Your task to perform on an android device: open app "Skype" Image 0: 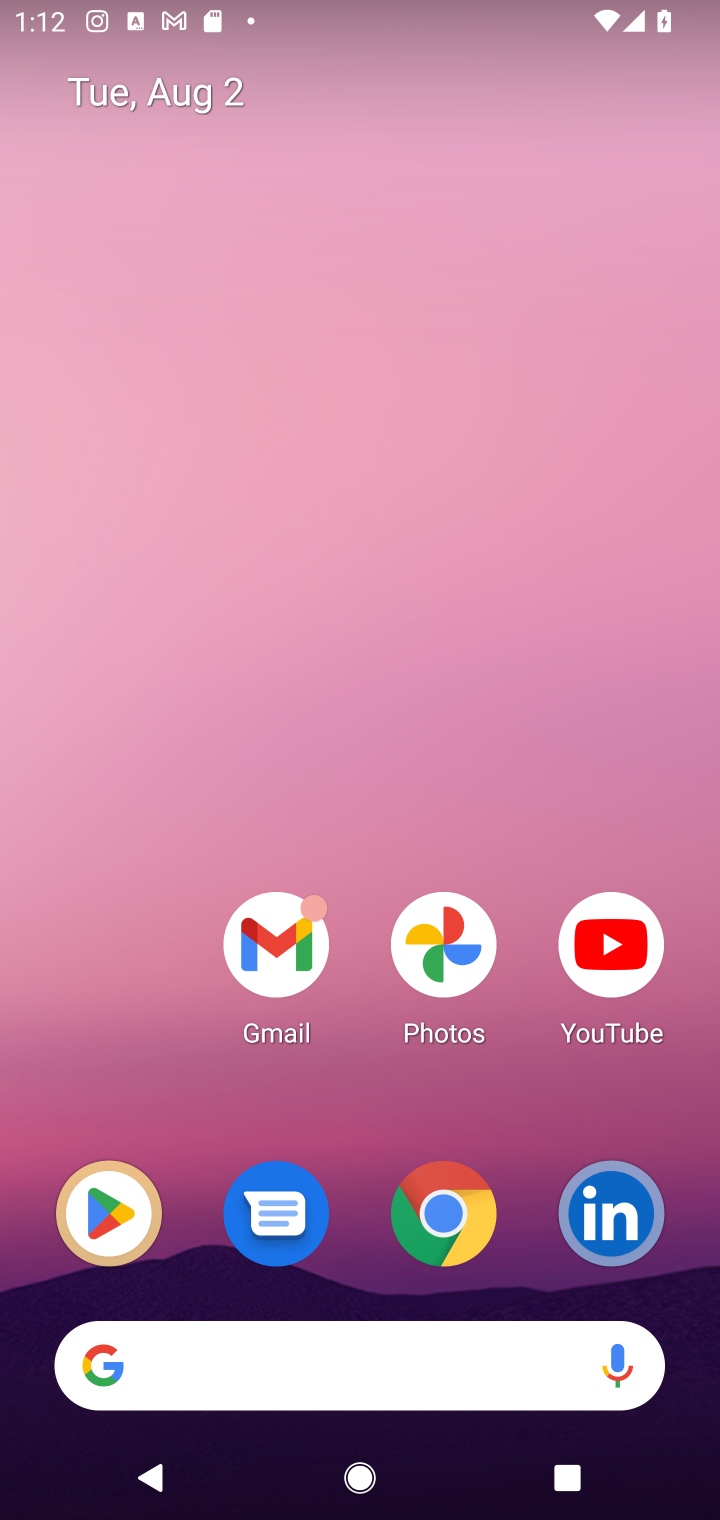
Step 0: click (87, 1228)
Your task to perform on an android device: open app "Skype" Image 1: 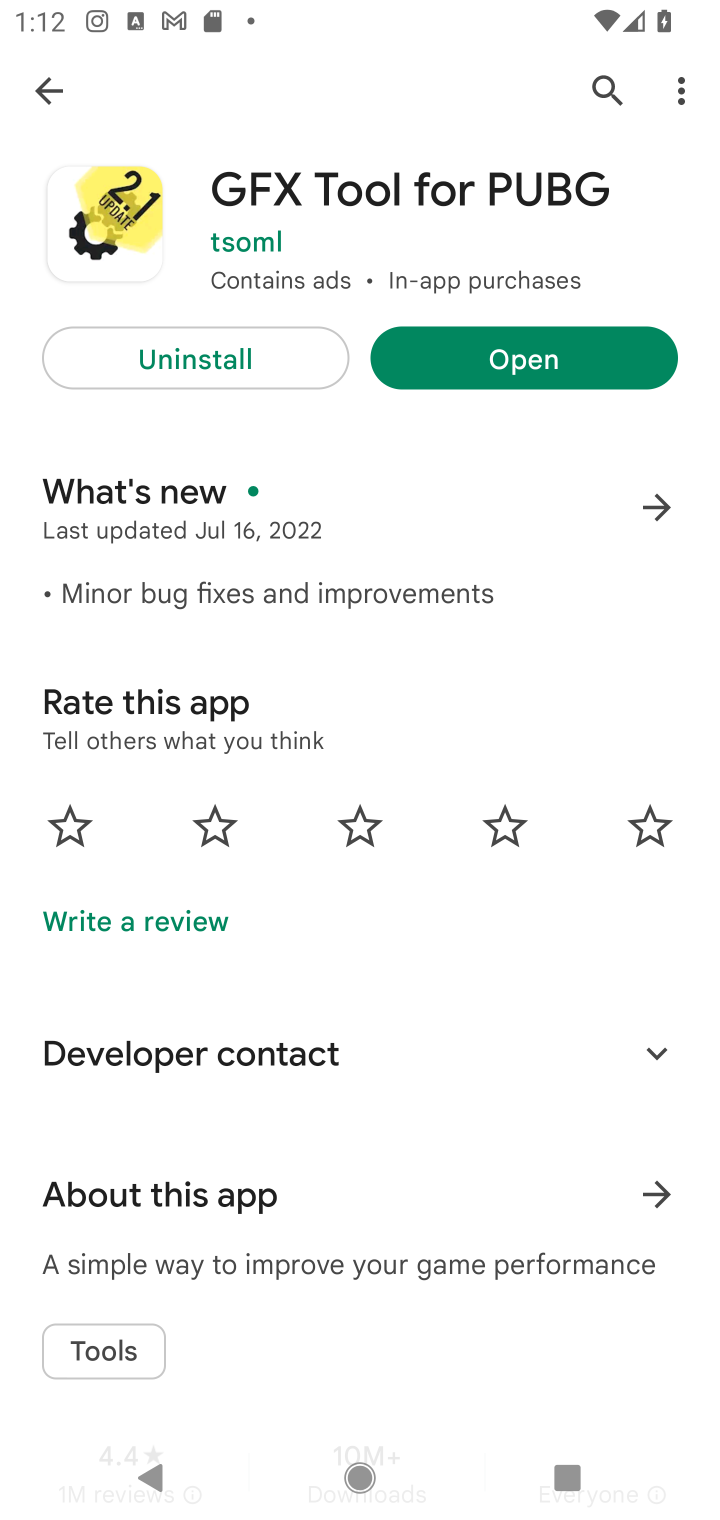
Step 1: click (46, 92)
Your task to perform on an android device: open app "Skype" Image 2: 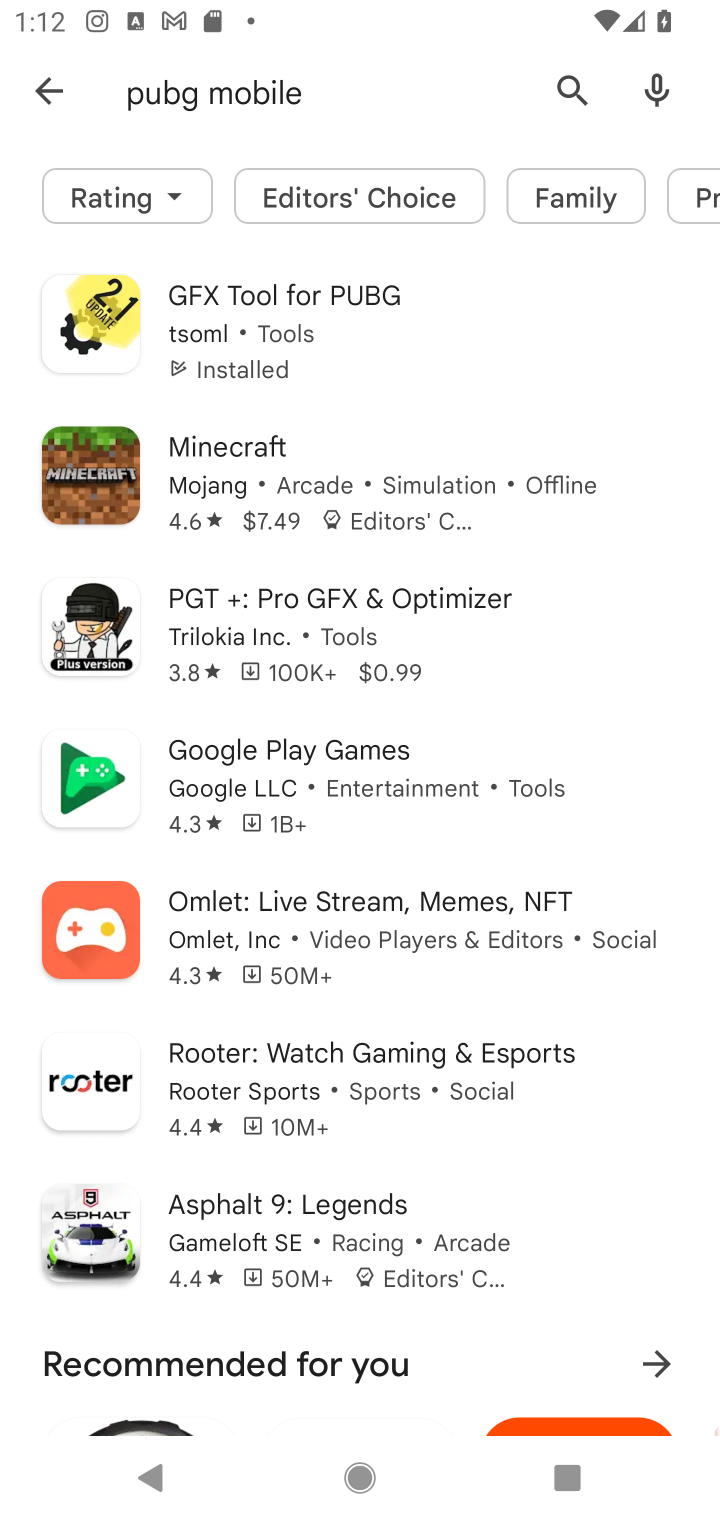
Step 2: click (48, 95)
Your task to perform on an android device: open app "Skype" Image 3: 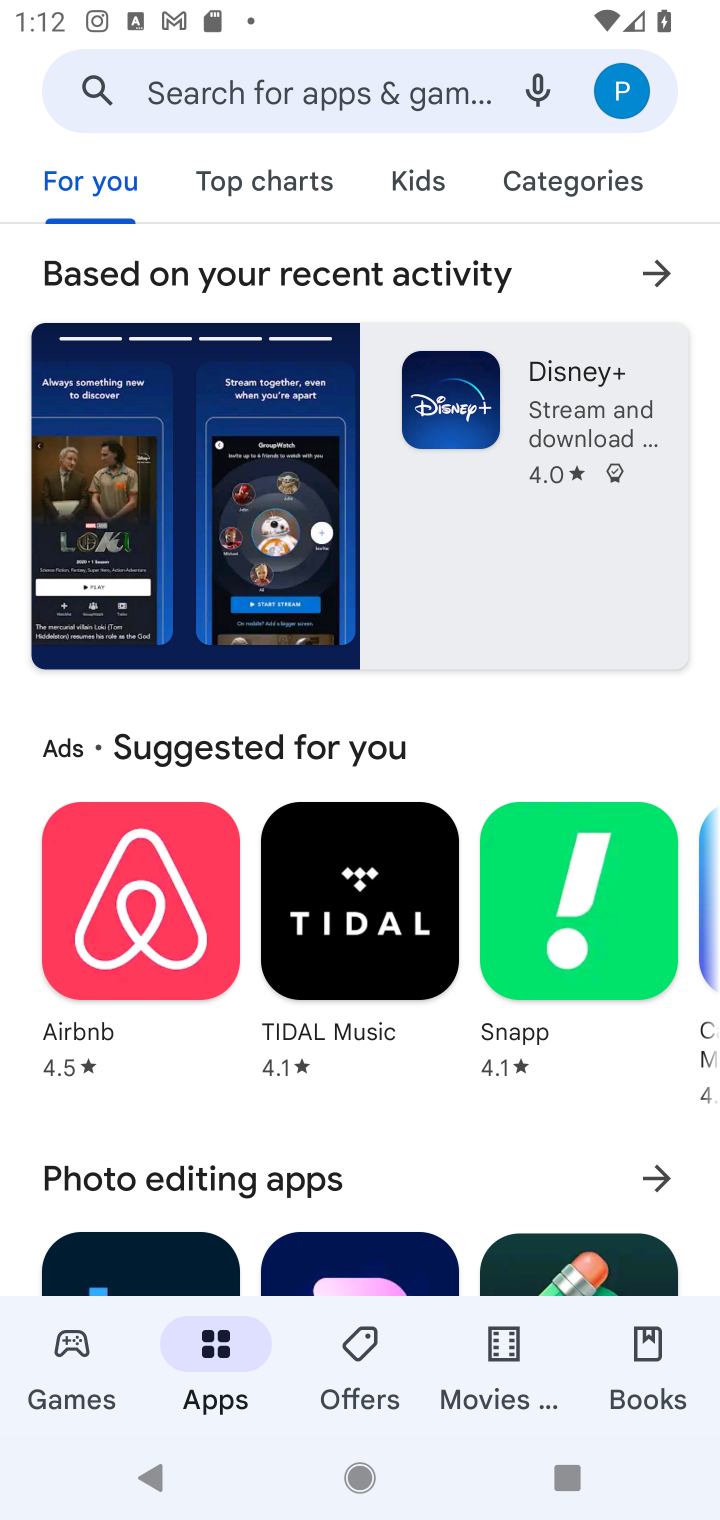
Step 3: type "Skype"
Your task to perform on an android device: open app "Skype" Image 4: 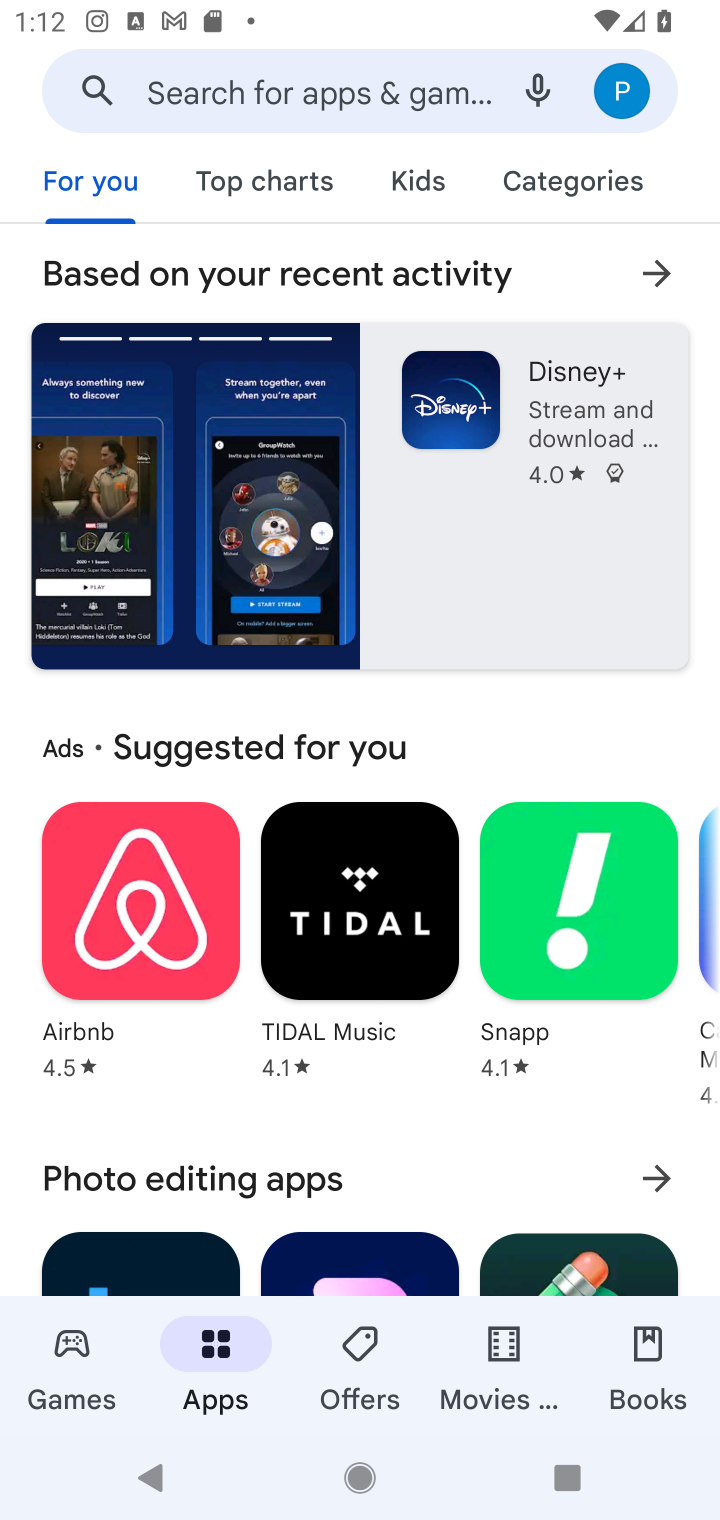
Step 4: click (343, 103)
Your task to perform on an android device: open app "Skype" Image 5: 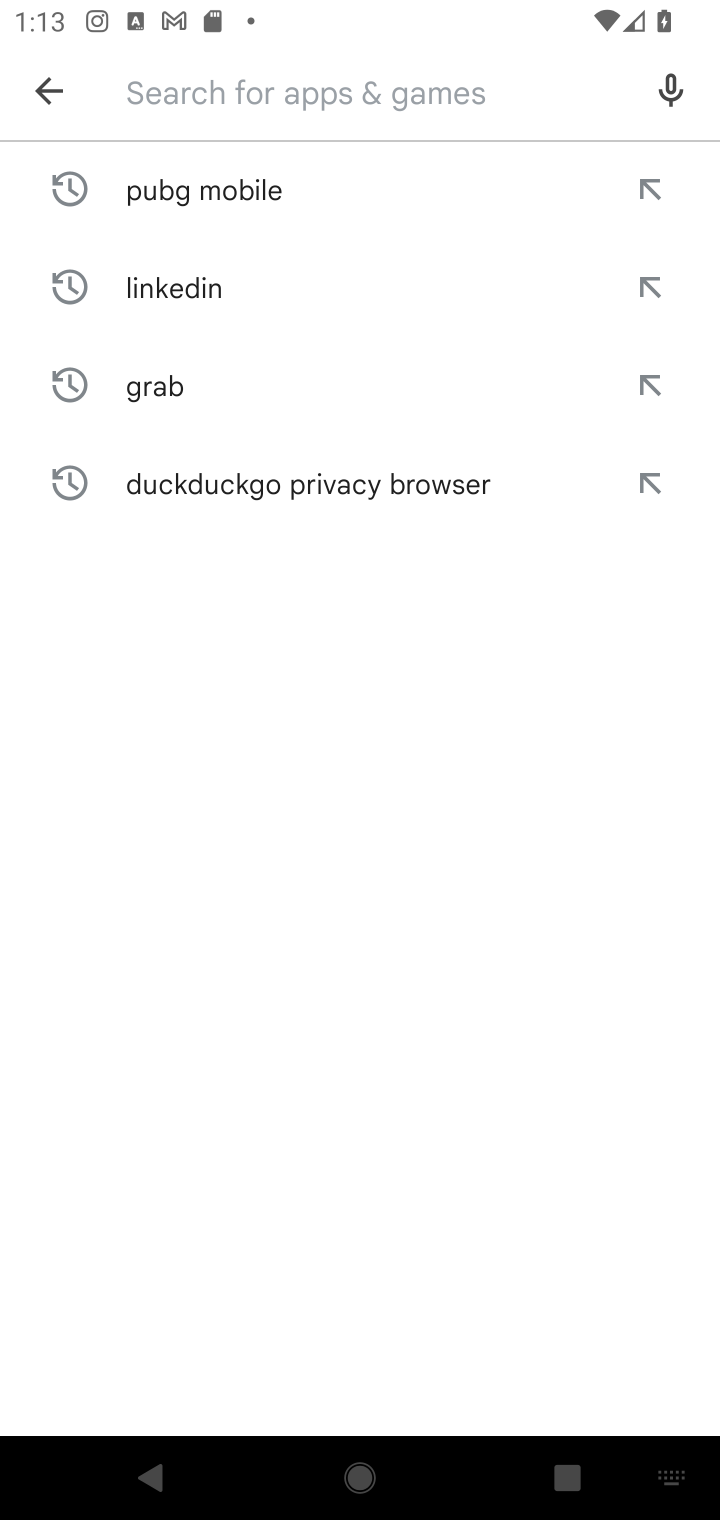
Step 5: type "Skype"
Your task to perform on an android device: open app "Skype" Image 6: 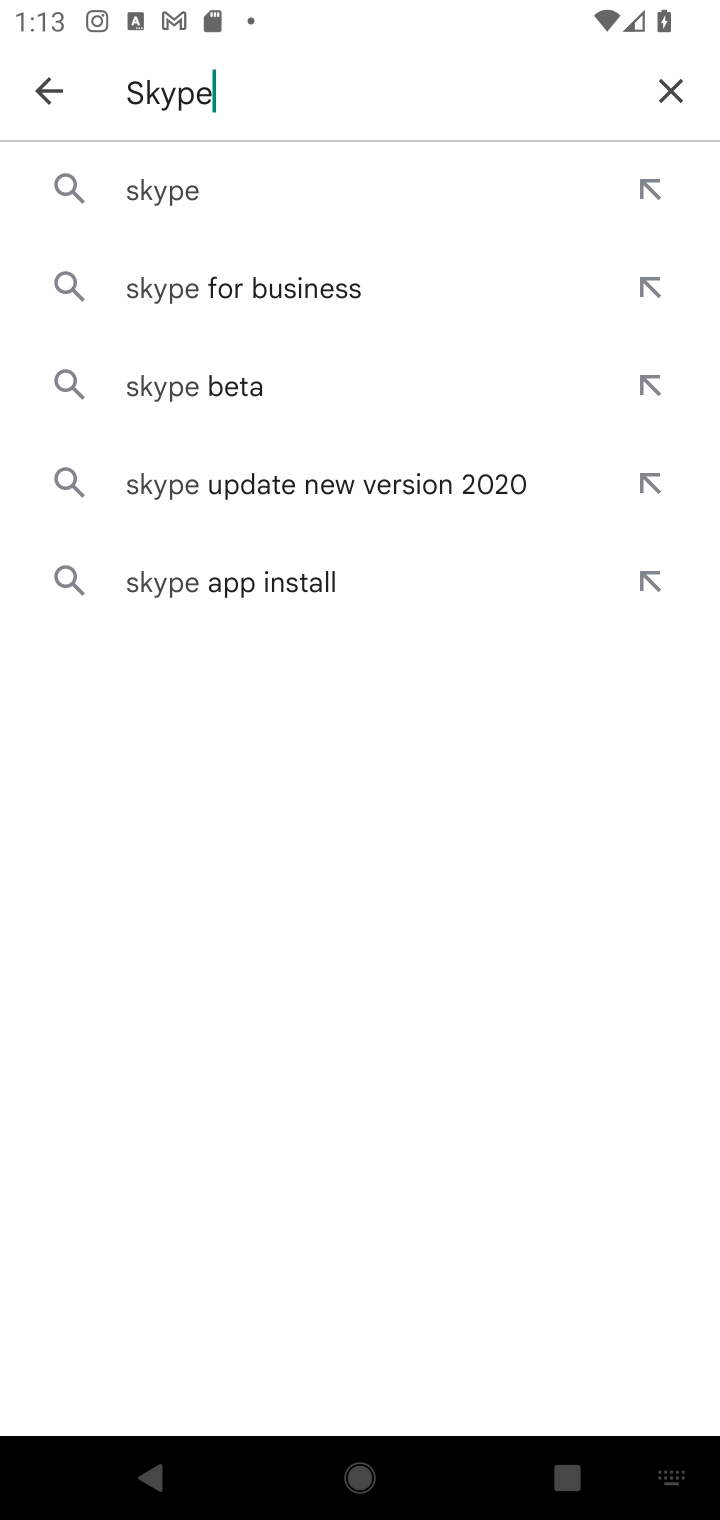
Step 6: click (201, 206)
Your task to perform on an android device: open app "Skype" Image 7: 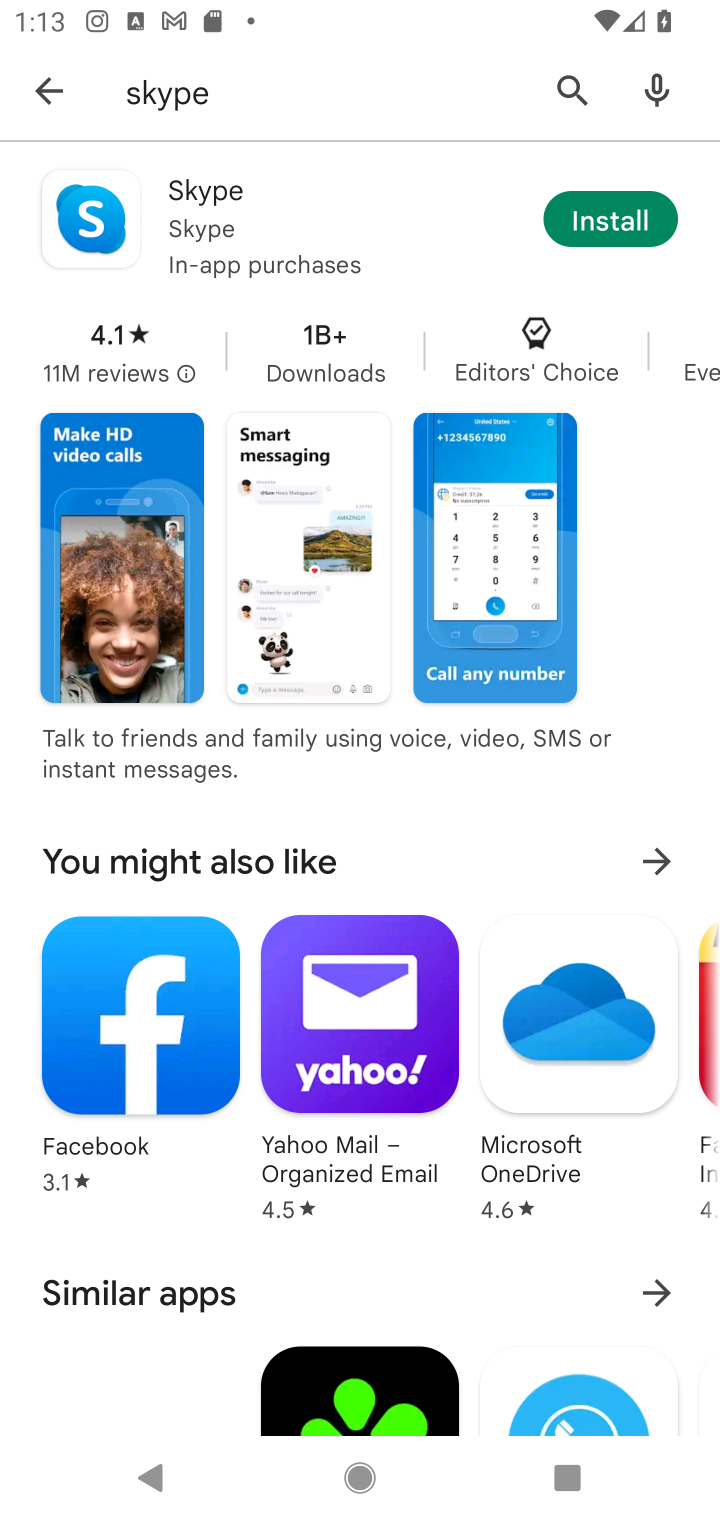
Step 7: click (657, 227)
Your task to perform on an android device: open app "Skype" Image 8: 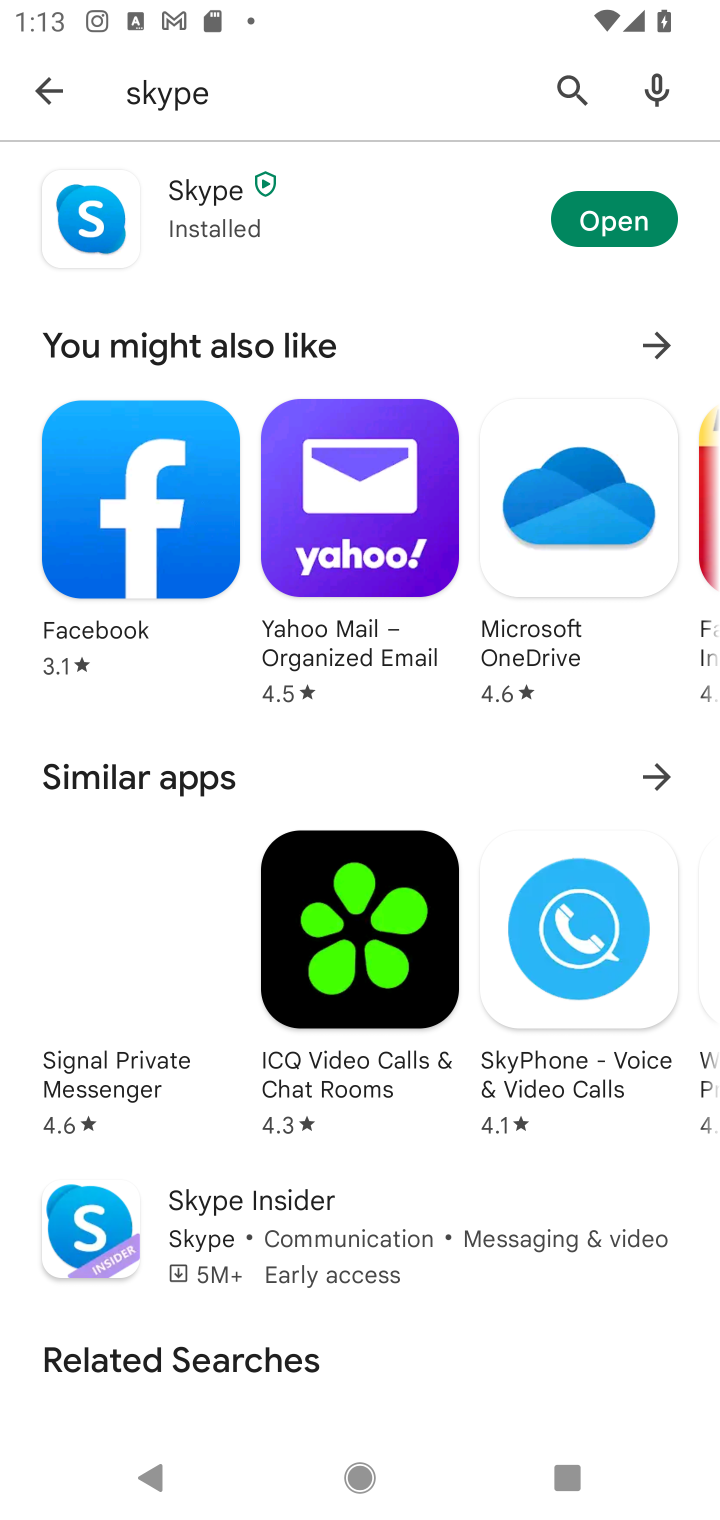
Step 8: click (645, 216)
Your task to perform on an android device: open app "Skype" Image 9: 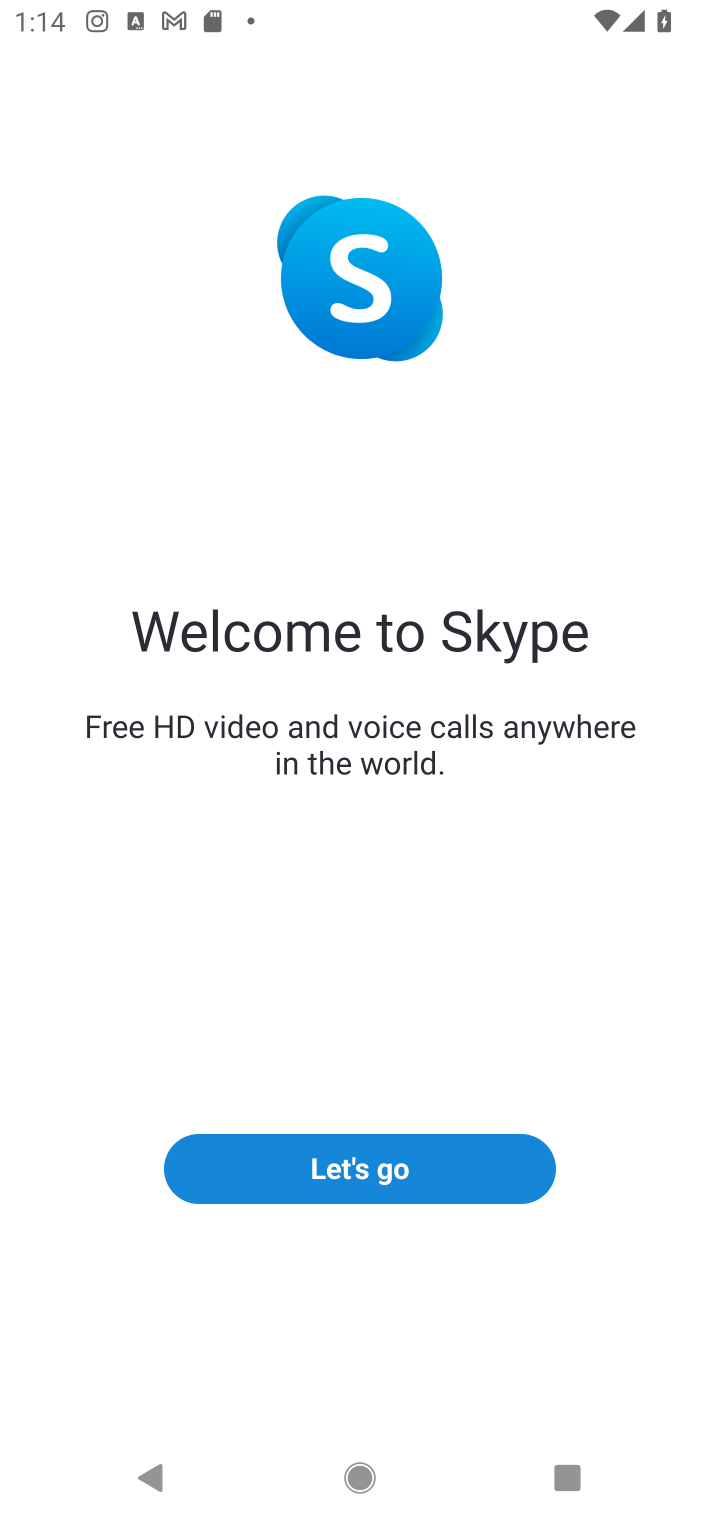
Step 9: task complete